Your task to perform on an android device: toggle location history Image 0: 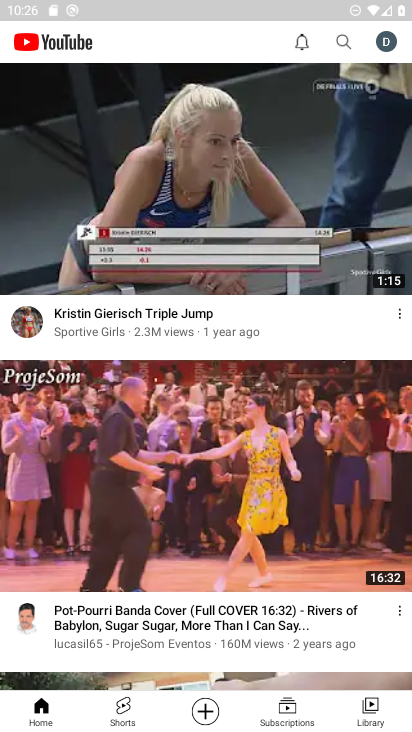
Step 0: press home button
Your task to perform on an android device: toggle location history Image 1: 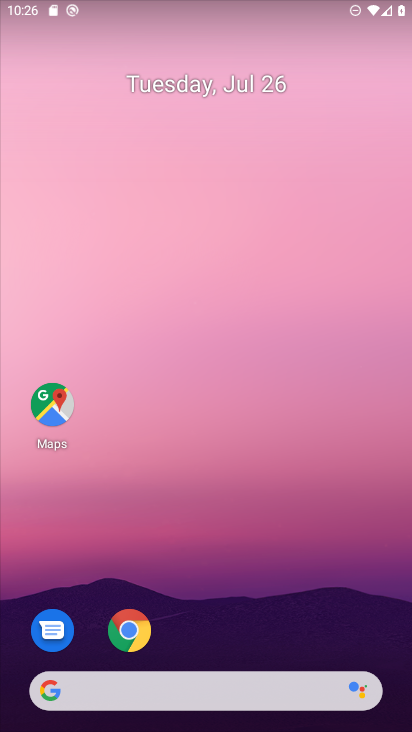
Step 1: click (54, 406)
Your task to perform on an android device: toggle location history Image 2: 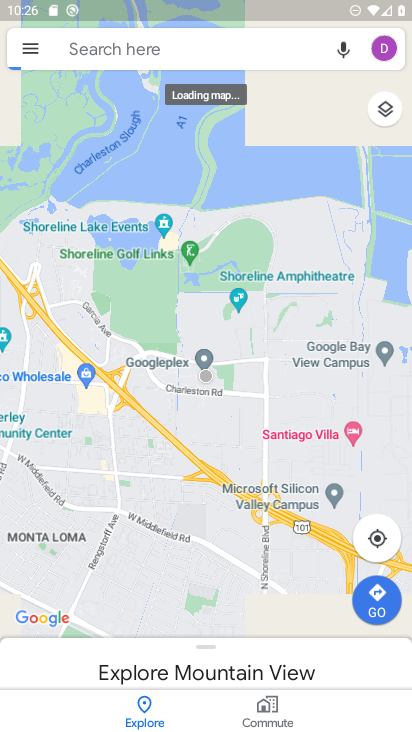
Step 2: click (29, 46)
Your task to perform on an android device: toggle location history Image 3: 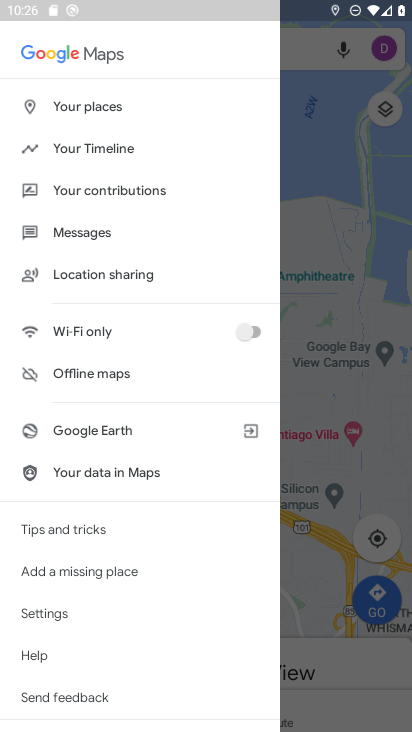
Step 3: drag from (157, 599) to (185, 318)
Your task to perform on an android device: toggle location history Image 4: 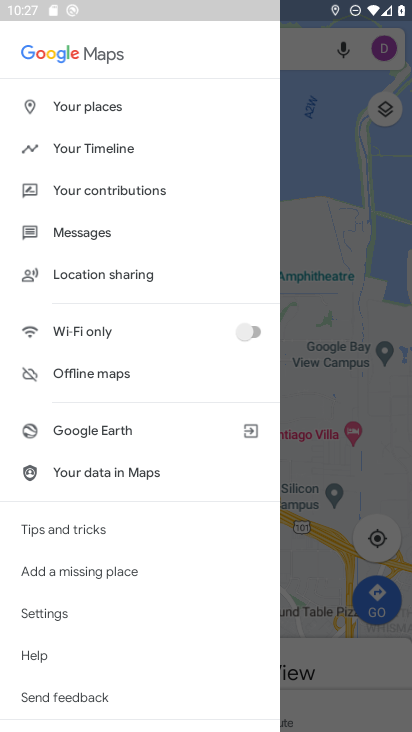
Step 4: click (48, 613)
Your task to perform on an android device: toggle location history Image 5: 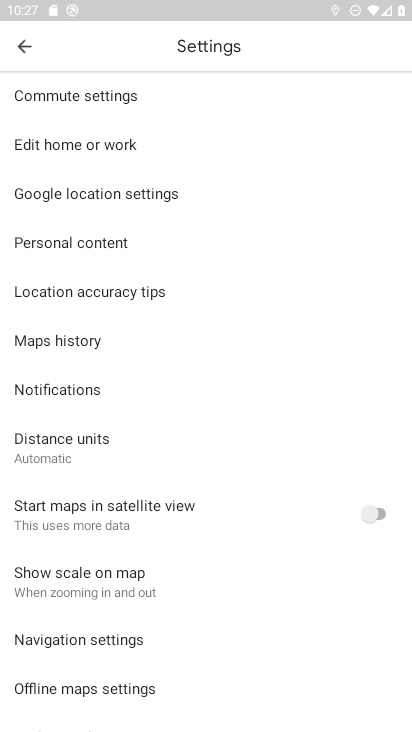
Step 5: click (60, 240)
Your task to perform on an android device: toggle location history Image 6: 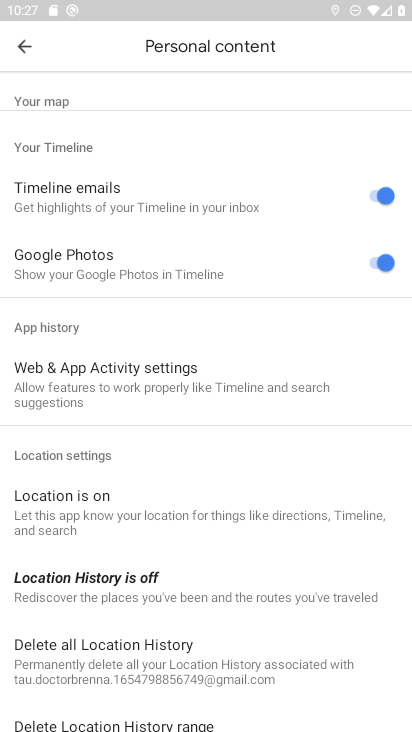
Step 6: drag from (210, 549) to (243, 244)
Your task to perform on an android device: toggle location history Image 7: 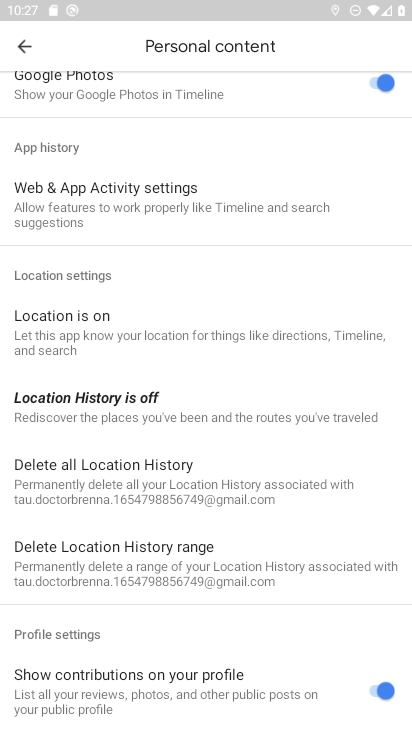
Step 7: click (57, 400)
Your task to perform on an android device: toggle location history Image 8: 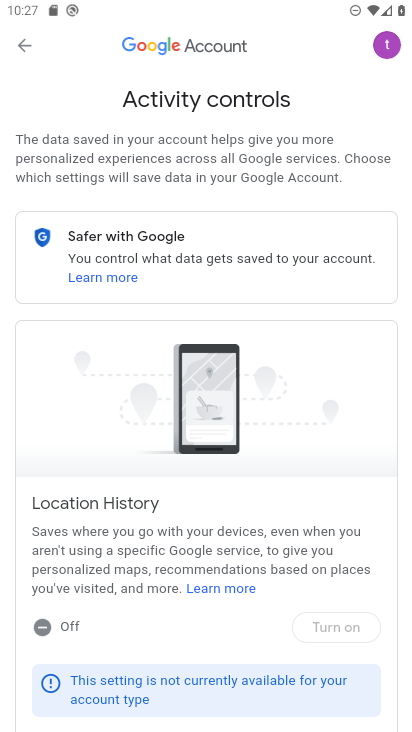
Step 8: task complete